Your task to perform on an android device: allow notifications from all sites in the chrome app Image 0: 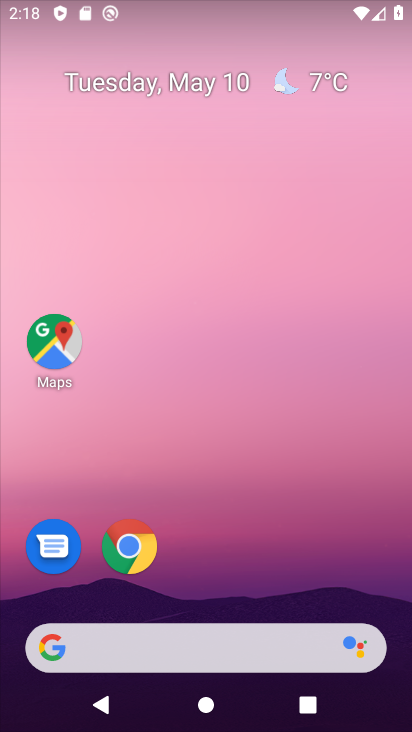
Step 0: click (125, 560)
Your task to perform on an android device: allow notifications from all sites in the chrome app Image 1: 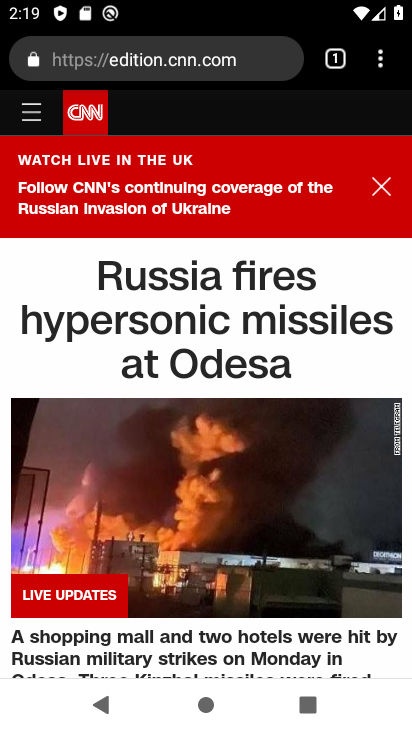
Step 1: drag from (376, 69) to (224, 573)
Your task to perform on an android device: allow notifications from all sites in the chrome app Image 2: 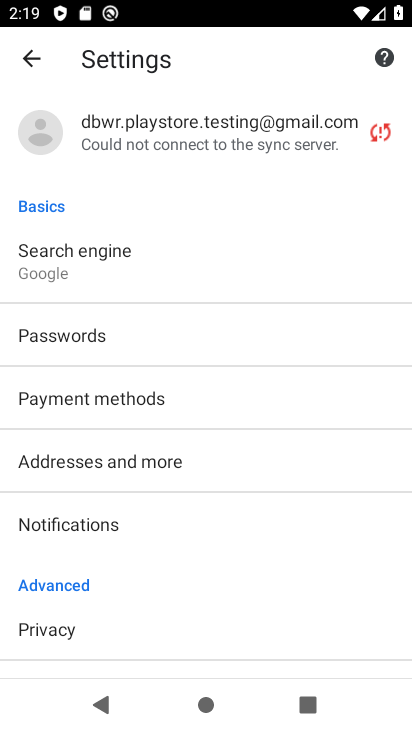
Step 2: drag from (202, 511) to (239, 203)
Your task to perform on an android device: allow notifications from all sites in the chrome app Image 3: 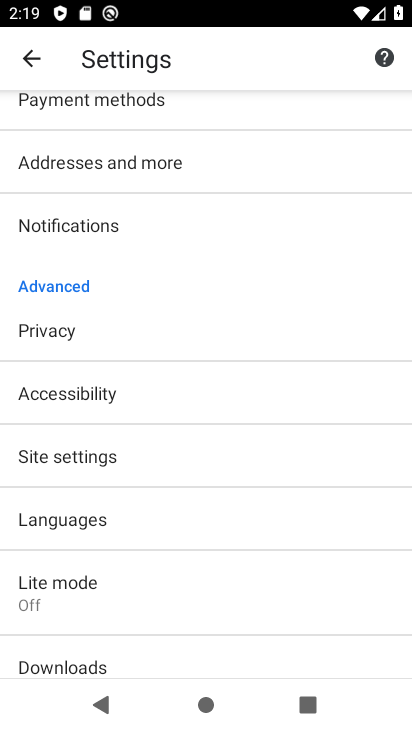
Step 3: click (51, 466)
Your task to perform on an android device: allow notifications from all sites in the chrome app Image 4: 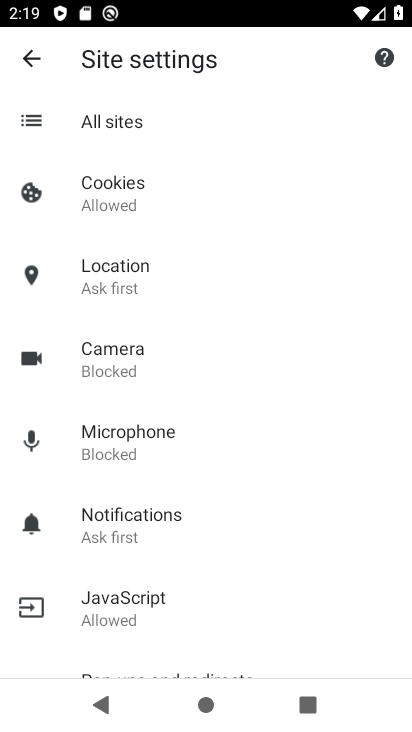
Step 4: click (150, 533)
Your task to perform on an android device: allow notifications from all sites in the chrome app Image 5: 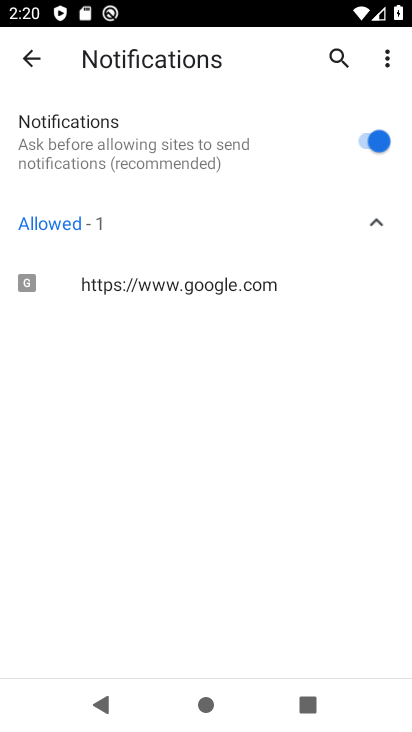
Step 5: task complete